Your task to perform on an android device: Open the map Image 0: 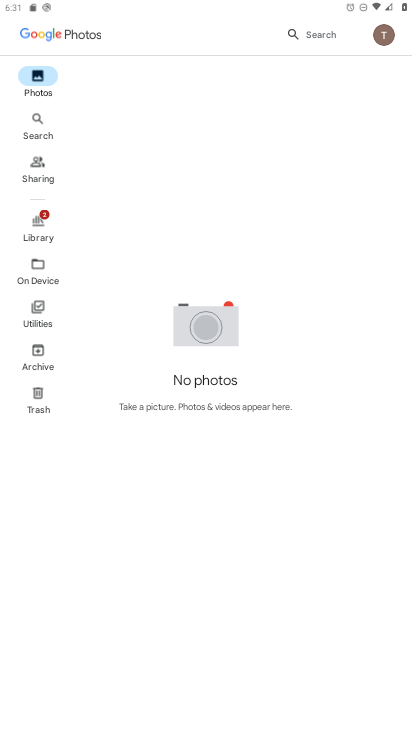
Step 0: press home button
Your task to perform on an android device: Open the map Image 1: 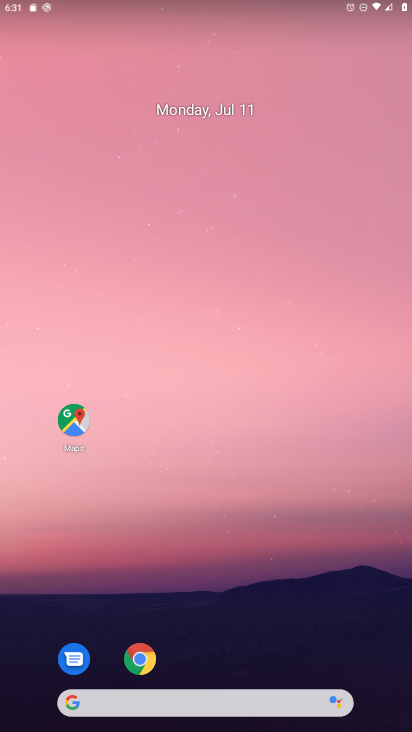
Step 1: click (76, 420)
Your task to perform on an android device: Open the map Image 2: 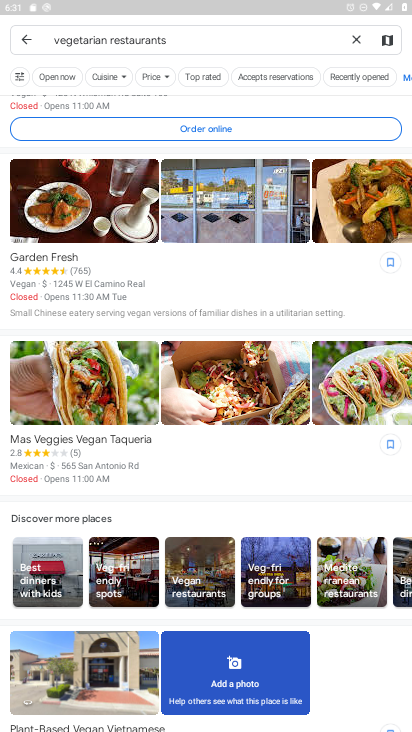
Step 2: press back button
Your task to perform on an android device: Open the map Image 3: 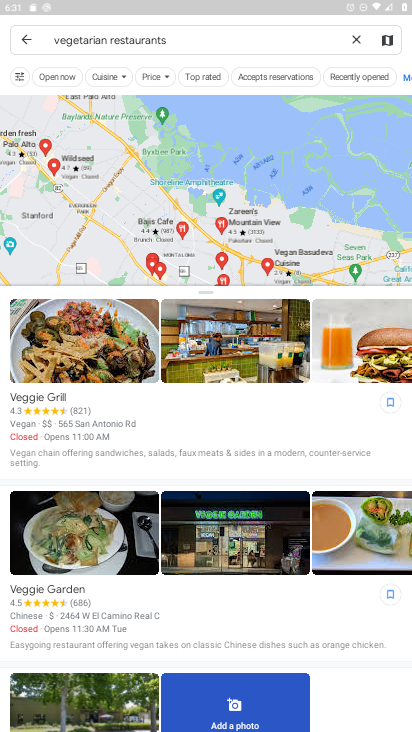
Step 3: click (353, 38)
Your task to perform on an android device: Open the map Image 4: 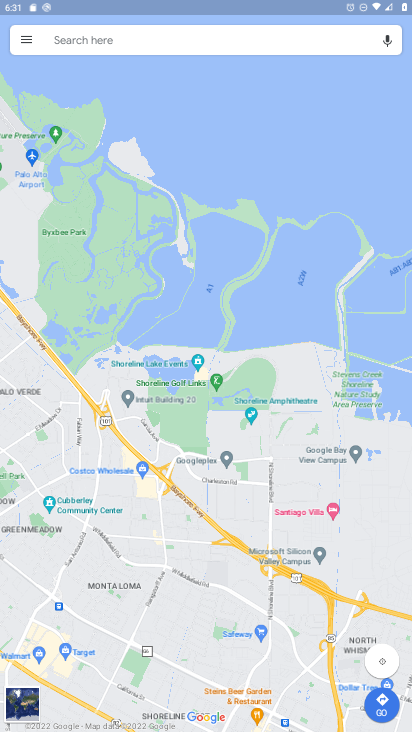
Step 4: task complete